Your task to perform on an android device: open app "PUBG MOBILE" (install if not already installed) and enter user name: "phenomenologically@gmail.com" and password: "artillery" Image 0: 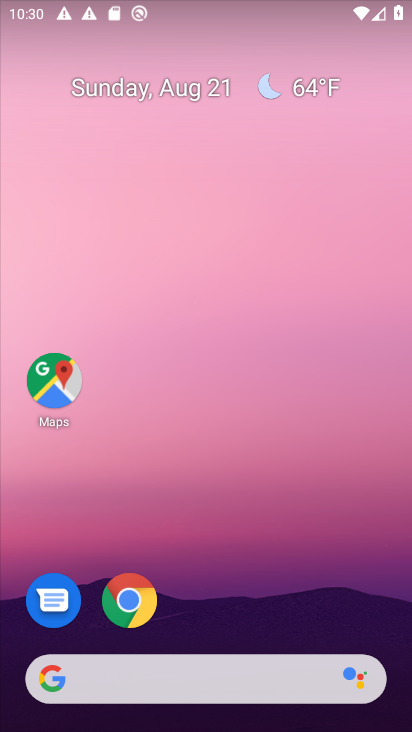
Step 0: drag from (197, 636) to (224, 78)
Your task to perform on an android device: open app "PUBG MOBILE" (install if not already installed) and enter user name: "phenomenologically@gmail.com" and password: "artillery" Image 1: 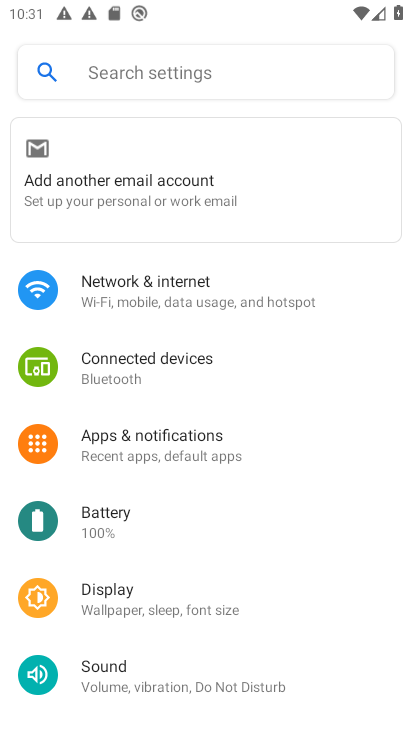
Step 1: press home button
Your task to perform on an android device: open app "PUBG MOBILE" (install if not already installed) and enter user name: "phenomenologically@gmail.com" and password: "artillery" Image 2: 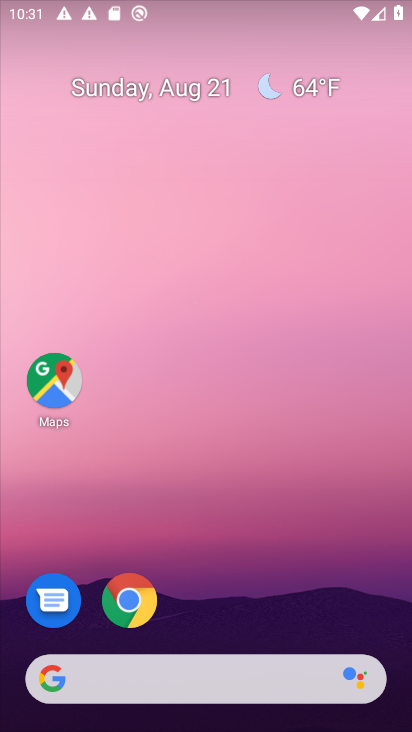
Step 2: drag from (162, 518) to (175, 33)
Your task to perform on an android device: open app "PUBG MOBILE" (install if not already installed) and enter user name: "phenomenologically@gmail.com" and password: "artillery" Image 3: 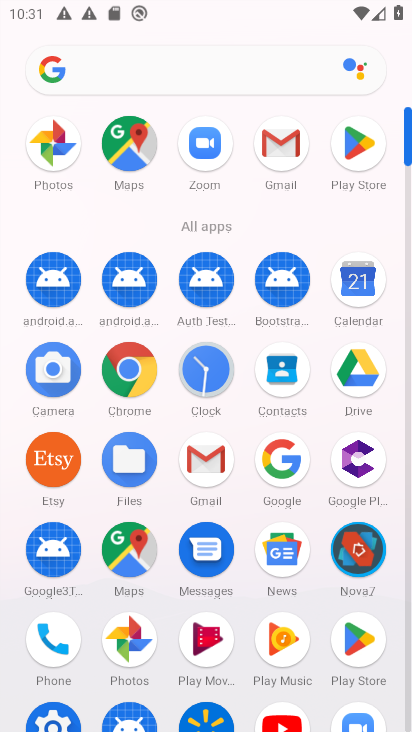
Step 3: click (352, 170)
Your task to perform on an android device: open app "PUBG MOBILE" (install if not already installed) and enter user name: "phenomenologically@gmail.com" and password: "artillery" Image 4: 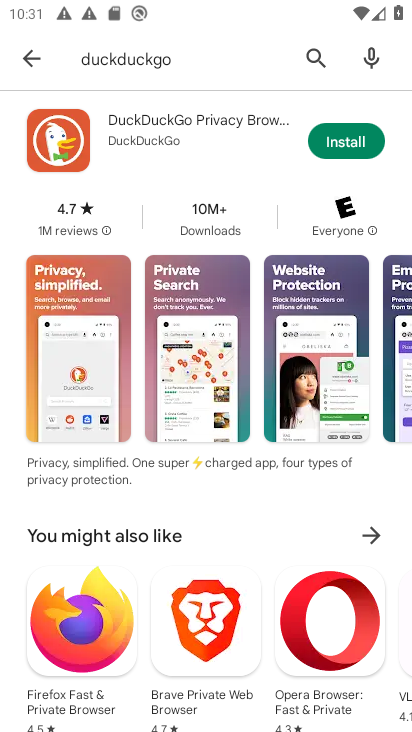
Step 4: click (141, 77)
Your task to perform on an android device: open app "PUBG MOBILE" (install if not already installed) and enter user name: "phenomenologically@gmail.com" and password: "artillery" Image 5: 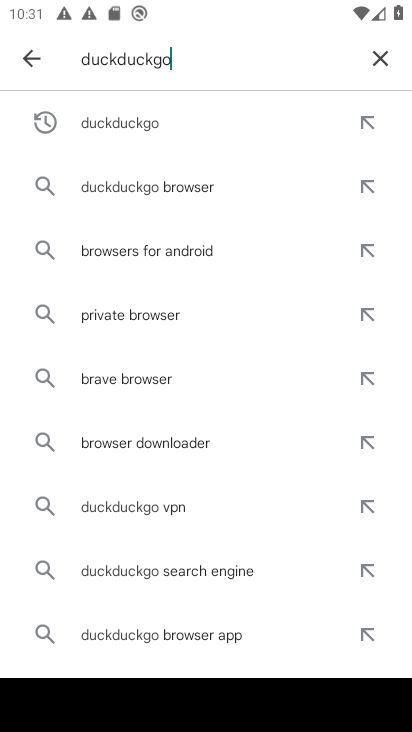
Step 5: click (372, 61)
Your task to perform on an android device: open app "PUBG MOBILE" (install if not already installed) and enter user name: "phenomenologically@gmail.com" and password: "artillery" Image 6: 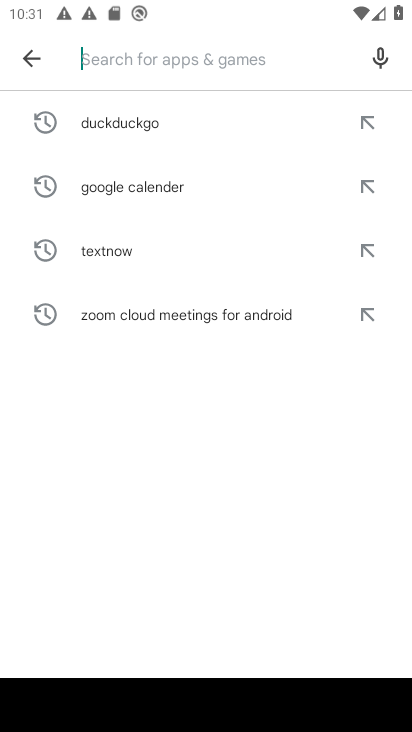
Step 6: type "PUBG moblie"
Your task to perform on an android device: open app "PUBG MOBILE" (install if not already installed) and enter user name: "phenomenologically@gmail.com" and password: "artillery" Image 7: 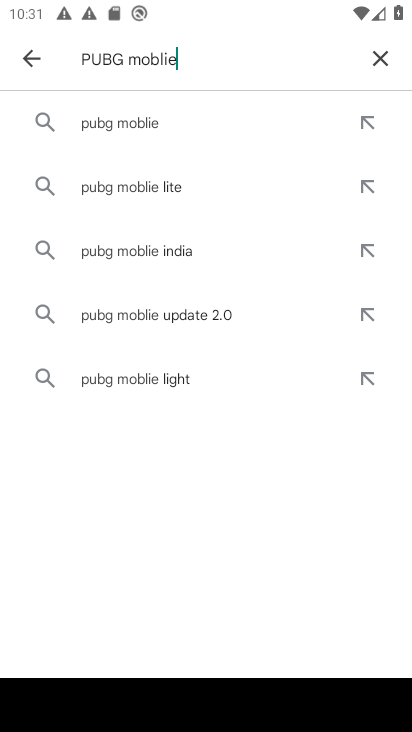
Step 7: click (151, 138)
Your task to perform on an android device: open app "PUBG MOBILE" (install if not already installed) and enter user name: "phenomenologically@gmail.com" and password: "artillery" Image 8: 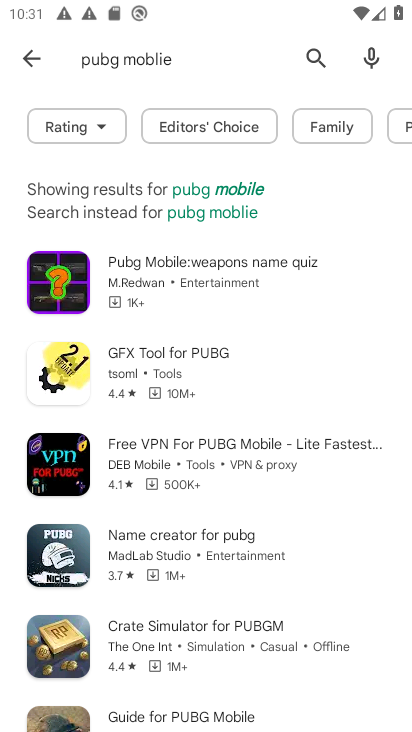
Step 8: task complete